Your task to perform on an android device: open device folders in google photos Image 0: 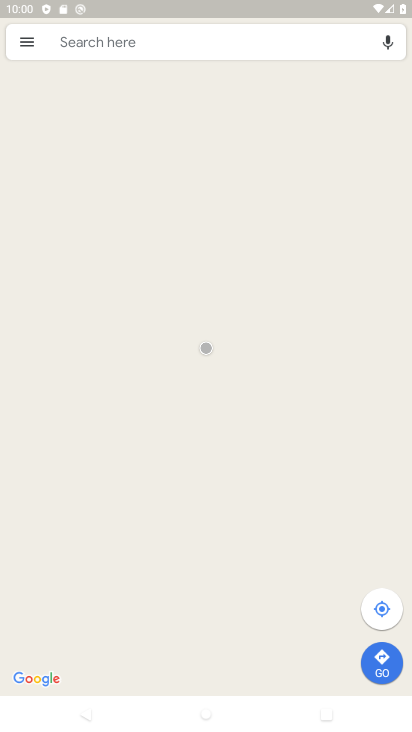
Step 0: press home button
Your task to perform on an android device: open device folders in google photos Image 1: 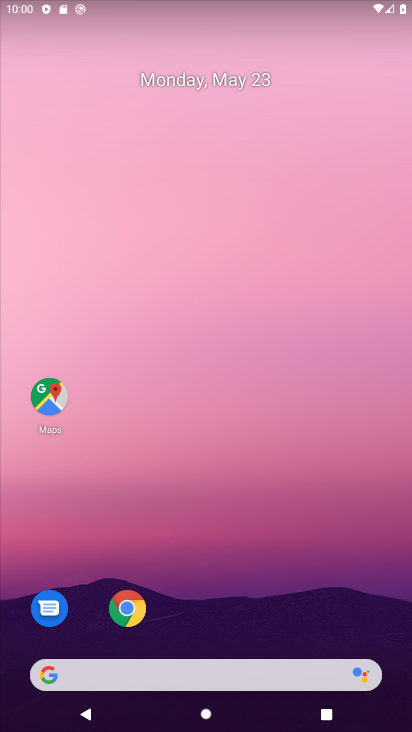
Step 1: drag from (174, 658) to (275, 153)
Your task to perform on an android device: open device folders in google photos Image 2: 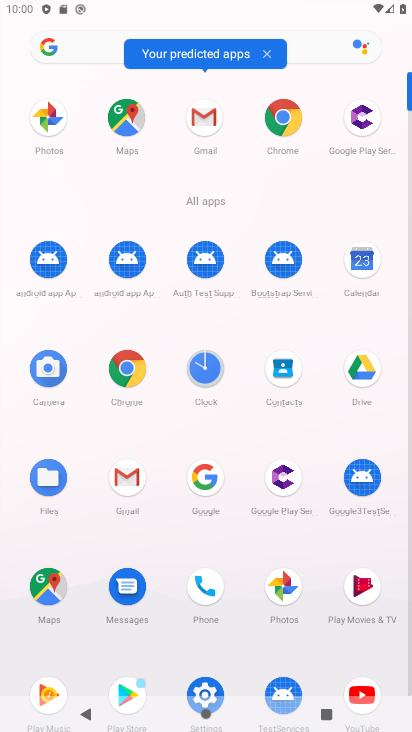
Step 2: click (286, 603)
Your task to perform on an android device: open device folders in google photos Image 3: 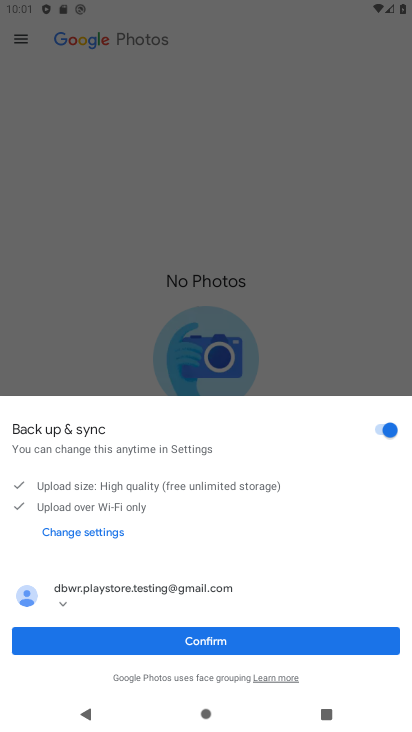
Step 3: click (215, 643)
Your task to perform on an android device: open device folders in google photos Image 4: 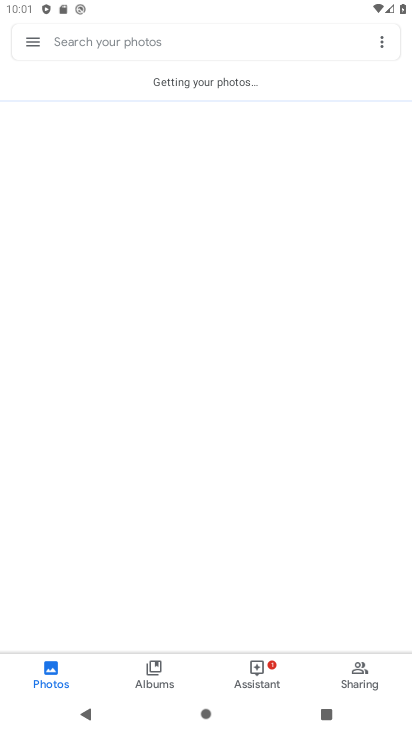
Step 4: click (35, 50)
Your task to perform on an android device: open device folders in google photos Image 5: 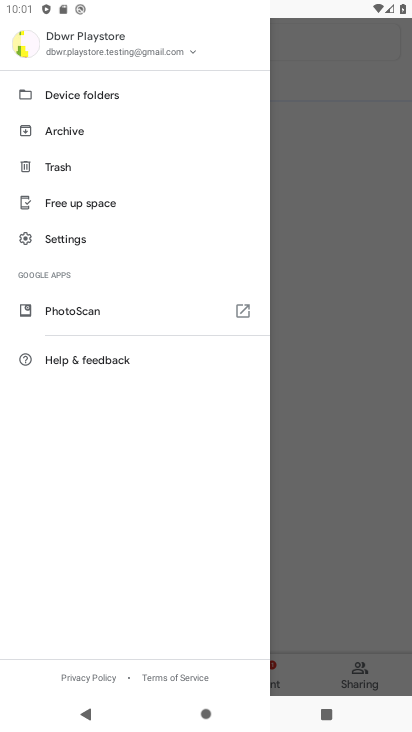
Step 5: click (117, 105)
Your task to perform on an android device: open device folders in google photos Image 6: 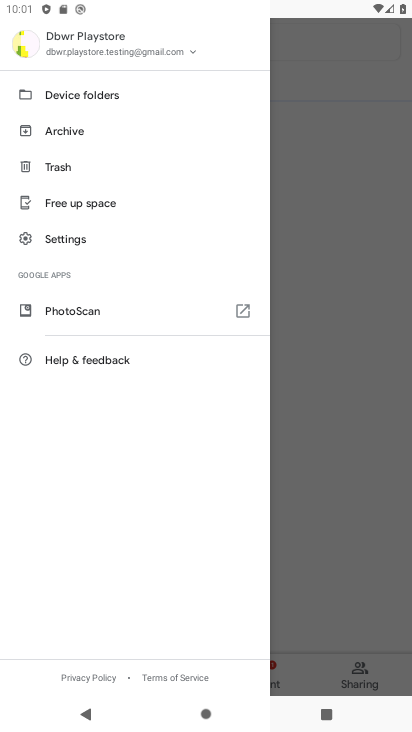
Step 6: click (117, 105)
Your task to perform on an android device: open device folders in google photos Image 7: 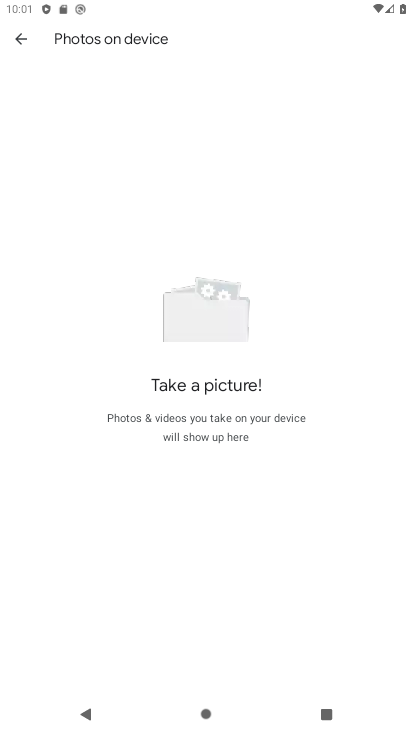
Step 7: task complete